Your task to perform on an android device: Open internet settings Image 0: 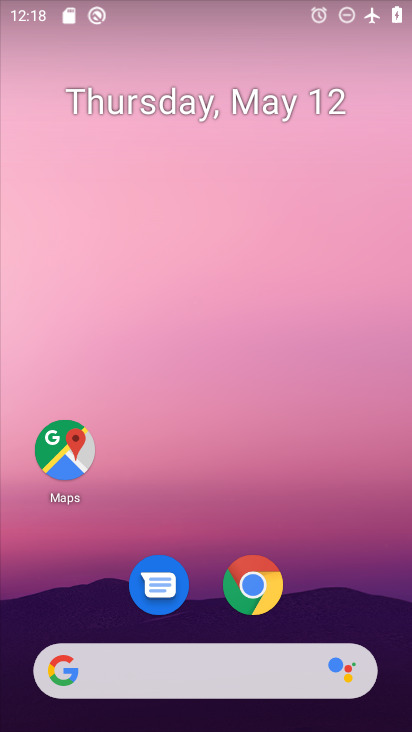
Step 0: drag from (336, 351) to (307, 29)
Your task to perform on an android device: Open internet settings Image 1: 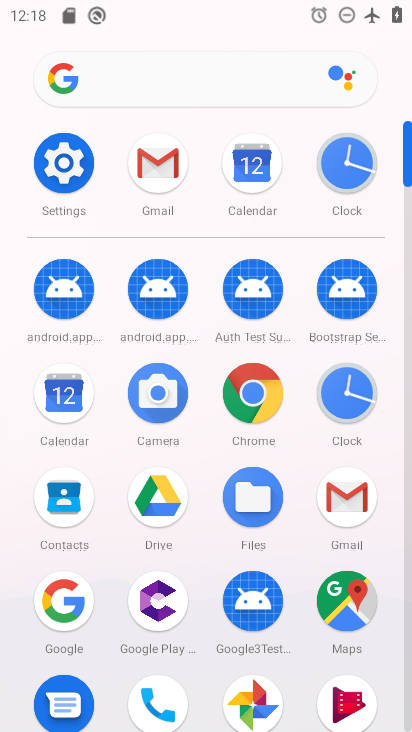
Step 1: drag from (198, 469) to (245, 158)
Your task to perform on an android device: Open internet settings Image 2: 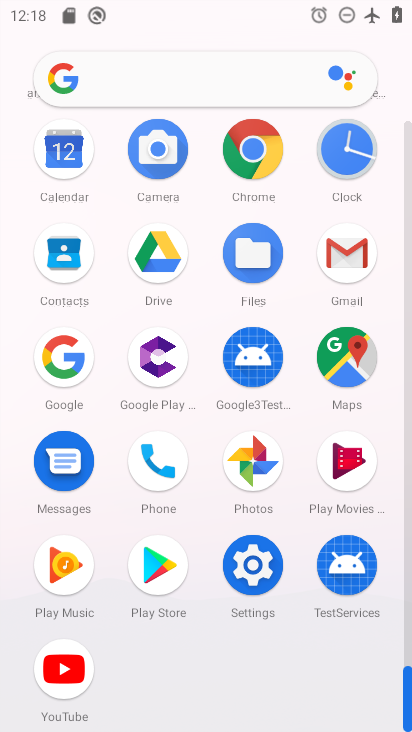
Step 2: drag from (204, 160) to (229, 521)
Your task to perform on an android device: Open internet settings Image 3: 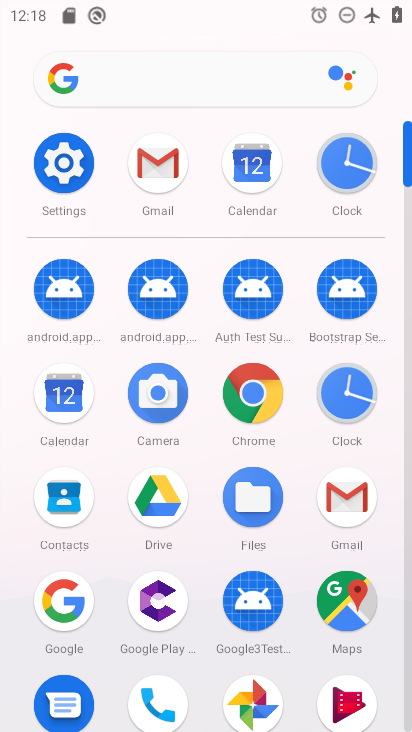
Step 3: click (75, 165)
Your task to perform on an android device: Open internet settings Image 4: 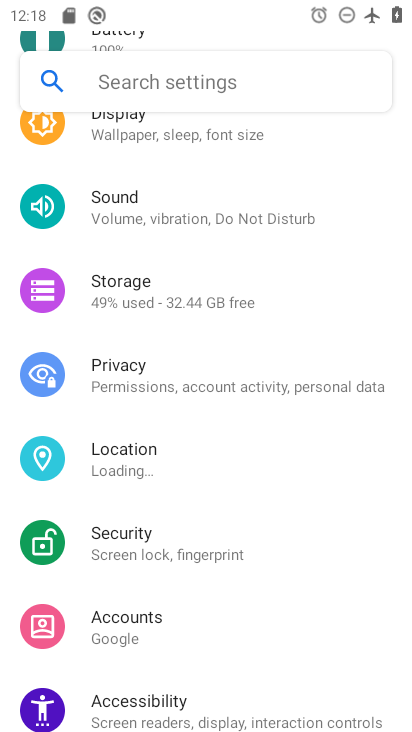
Step 4: drag from (210, 240) to (231, 480)
Your task to perform on an android device: Open internet settings Image 5: 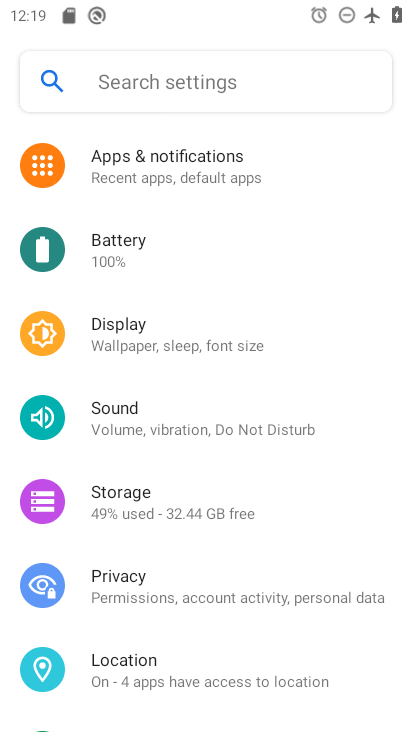
Step 5: drag from (223, 245) to (246, 647)
Your task to perform on an android device: Open internet settings Image 6: 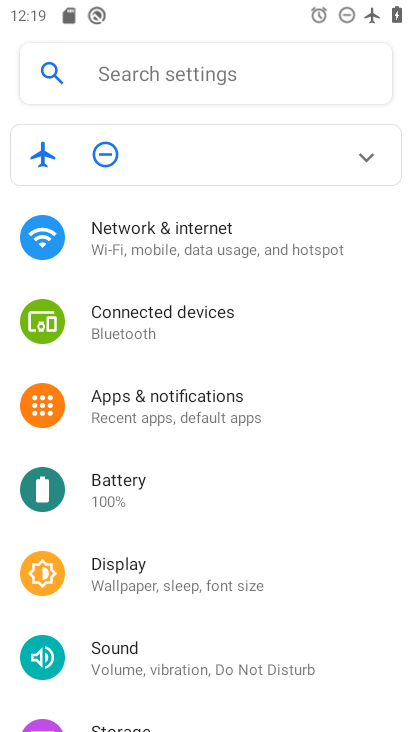
Step 6: click (193, 233)
Your task to perform on an android device: Open internet settings Image 7: 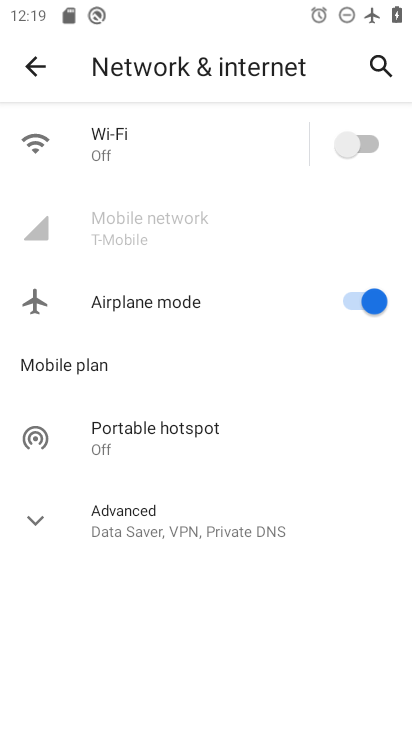
Step 7: task complete